Your task to perform on an android device: show emergency info Image 0: 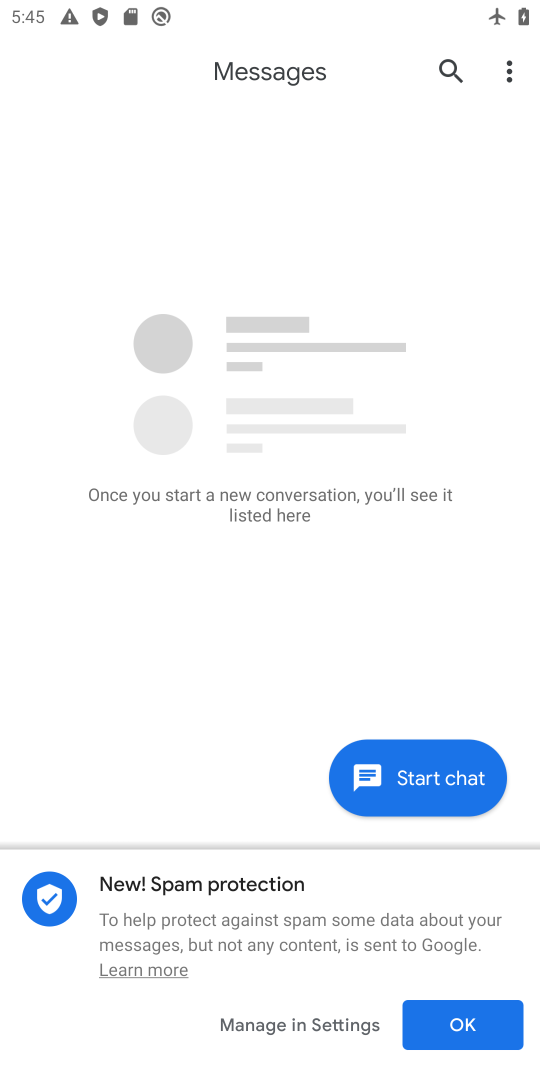
Step 0: press back button
Your task to perform on an android device: show emergency info Image 1: 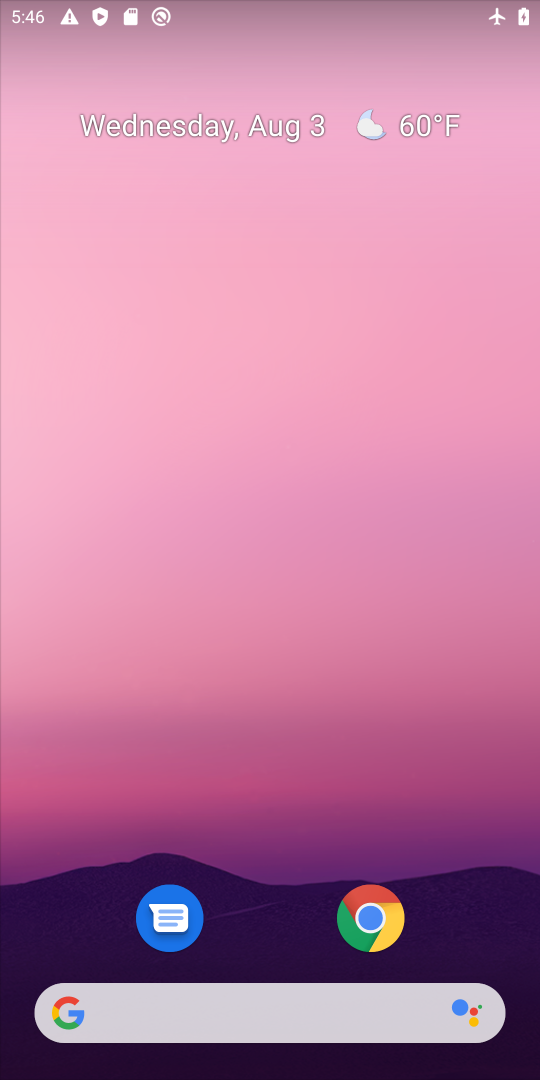
Step 1: drag from (280, 985) to (255, 378)
Your task to perform on an android device: show emergency info Image 2: 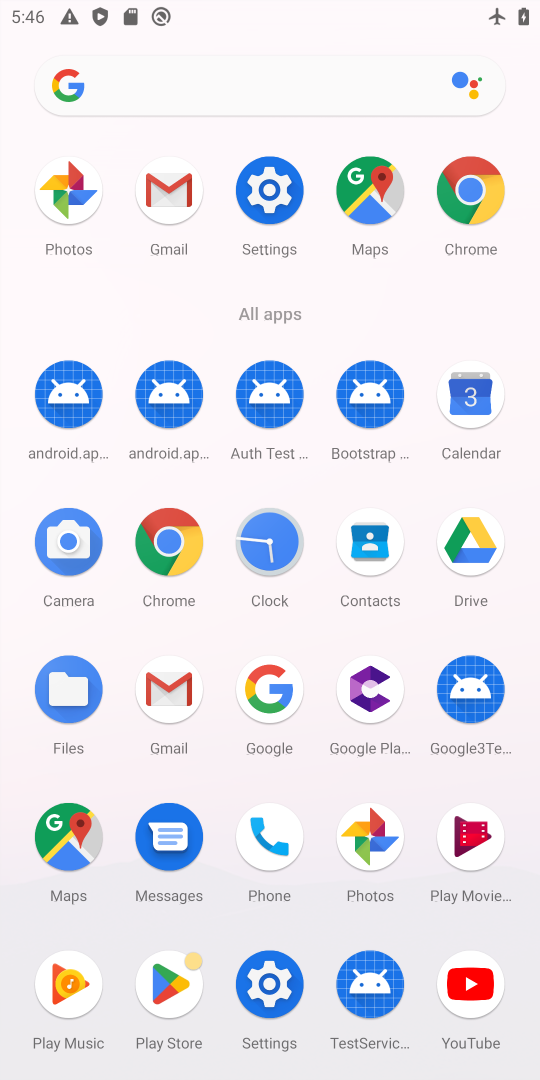
Step 2: click (258, 201)
Your task to perform on an android device: show emergency info Image 3: 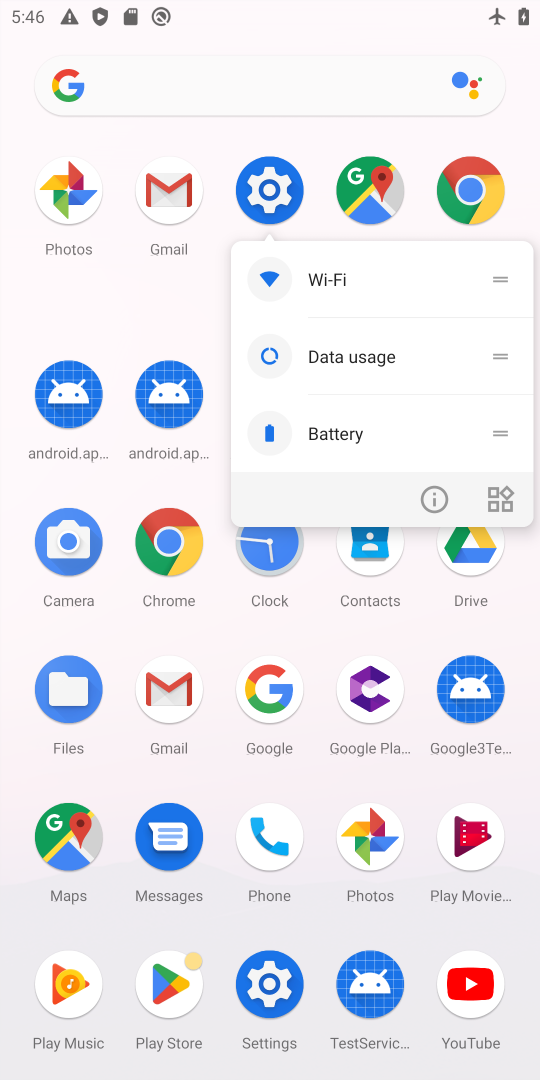
Step 3: click (258, 203)
Your task to perform on an android device: show emergency info Image 4: 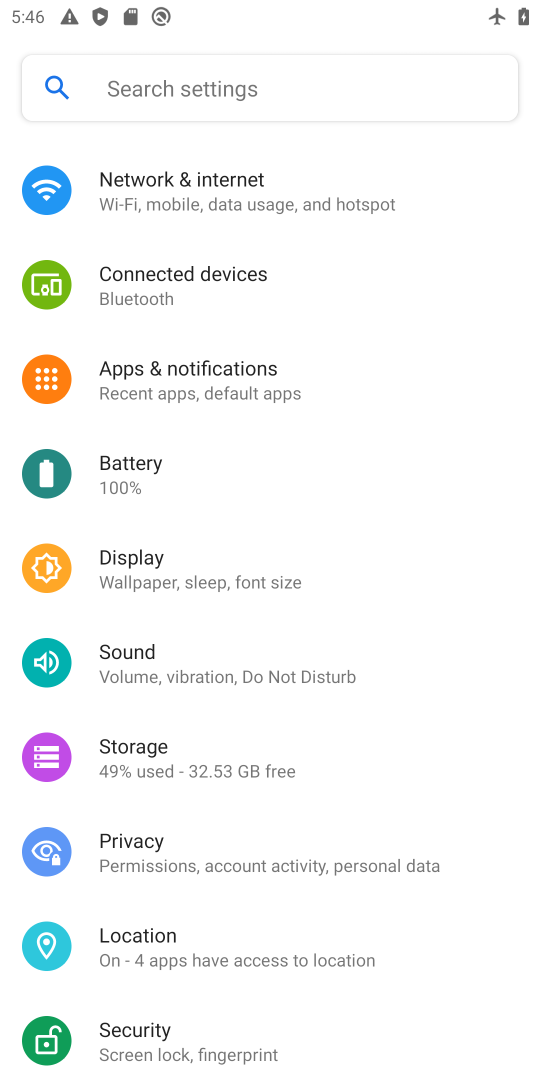
Step 4: drag from (202, 843) to (147, 32)
Your task to perform on an android device: show emergency info Image 5: 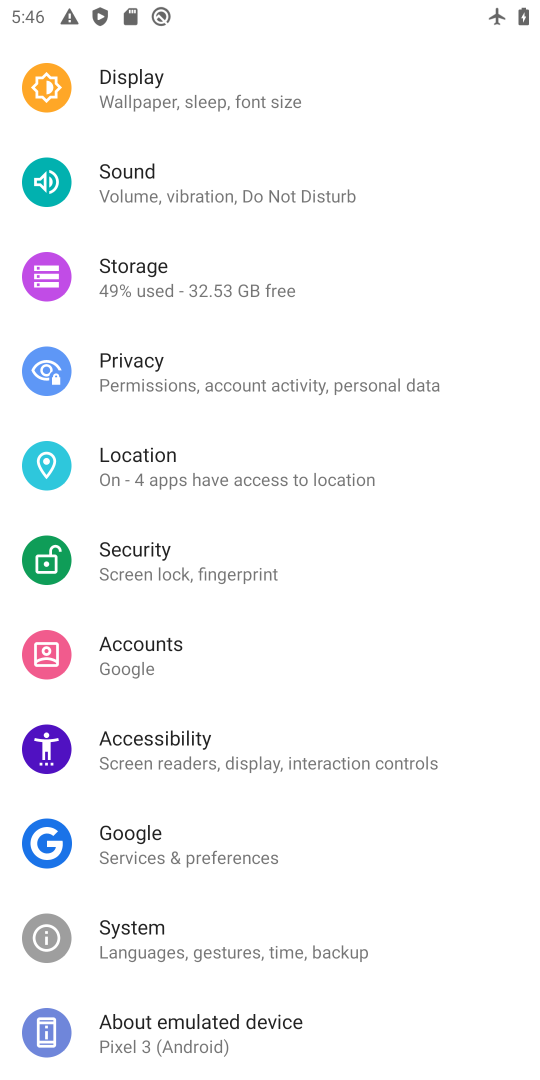
Step 5: click (198, 1018)
Your task to perform on an android device: show emergency info Image 6: 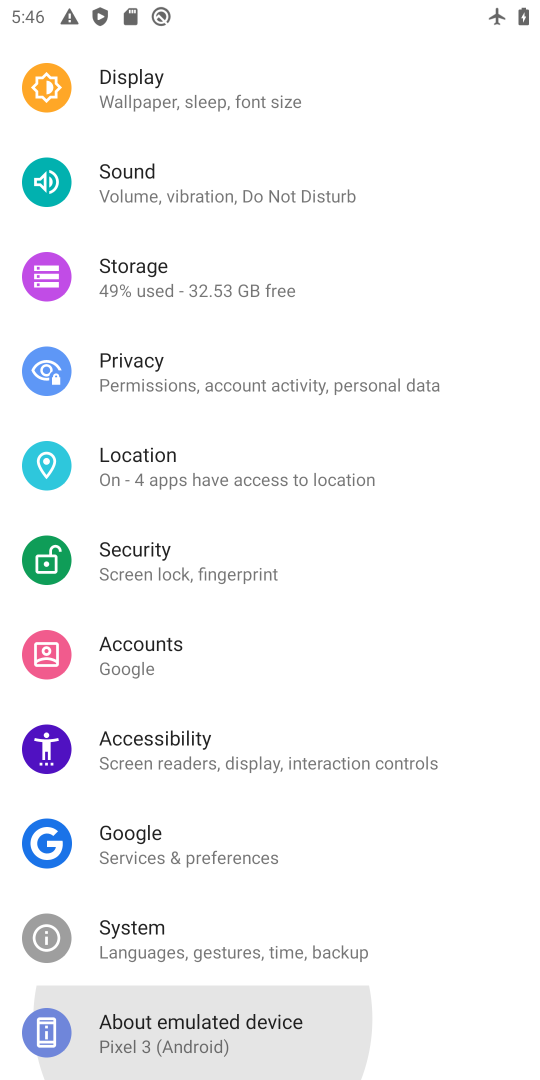
Step 6: click (198, 1018)
Your task to perform on an android device: show emergency info Image 7: 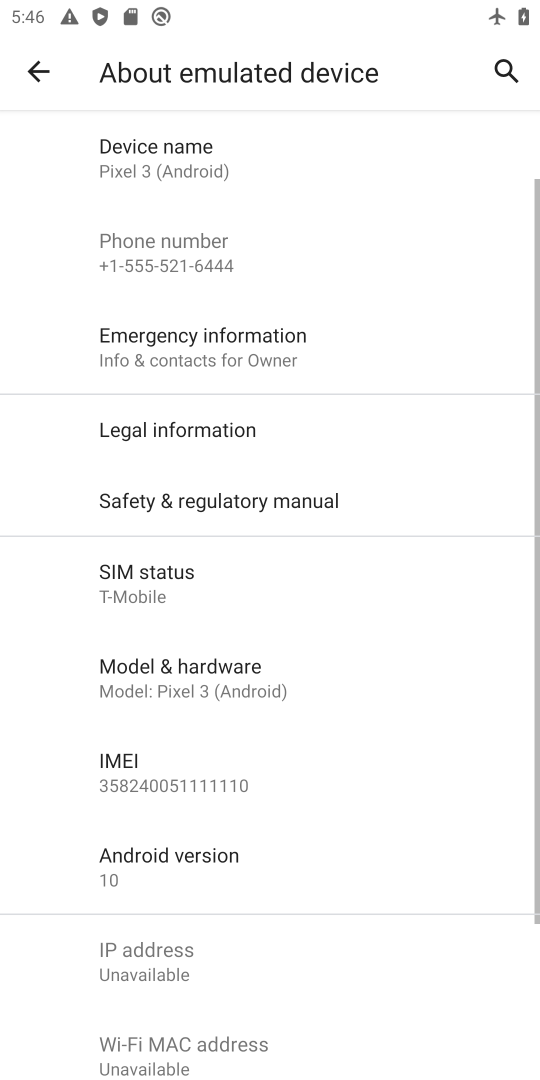
Step 7: click (224, 360)
Your task to perform on an android device: show emergency info Image 8: 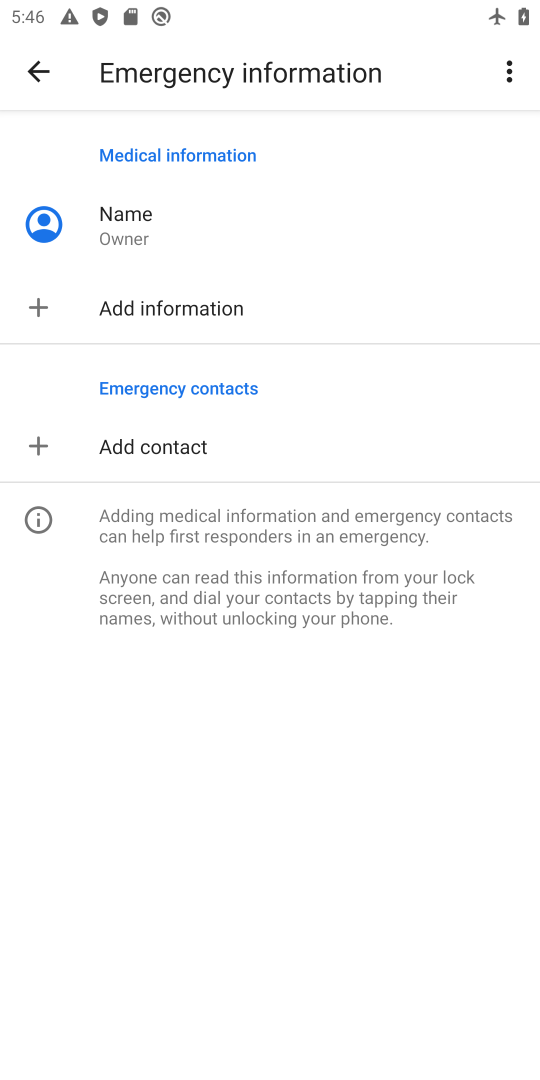
Step 8: task complete